Your task to perform on an android device: Open Google Chrome and open the bookmarks view Image 0: 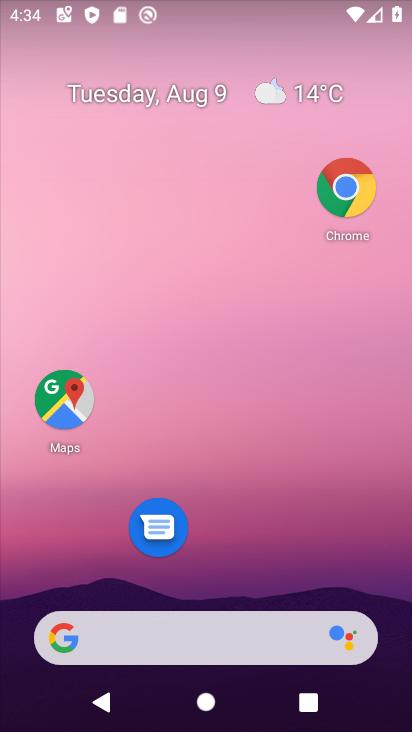
Step 0: click (351, 202)
Your task to perform on an android device: Open Google Chrome and open the bookmarks view Image 1: 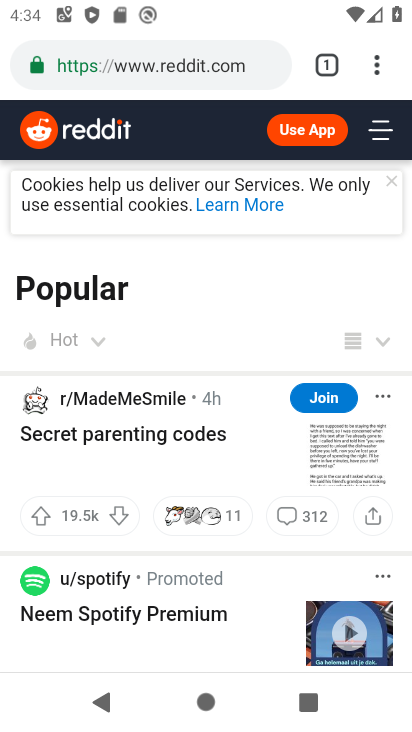
Step 1: click (386, 67)
Your task to perform on an android device: Open Google Chrome and open the bookmarks view Image 2: 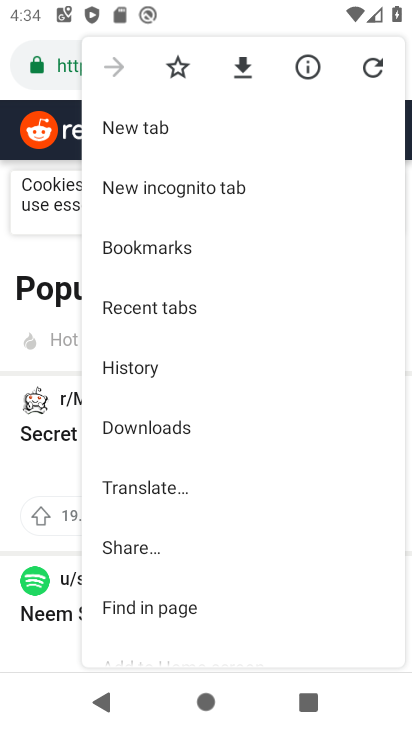
Step 2: click (217, 261)
Your task to perform on an android device: Open Google Chrome and open the bookmarks view Image 3: 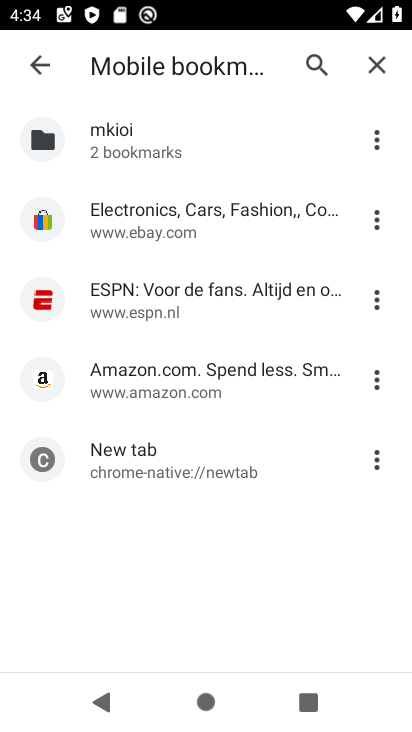
Step 3: task complete